Your task to perform on an android device: toggle show notifications on the lock screen Image 0: 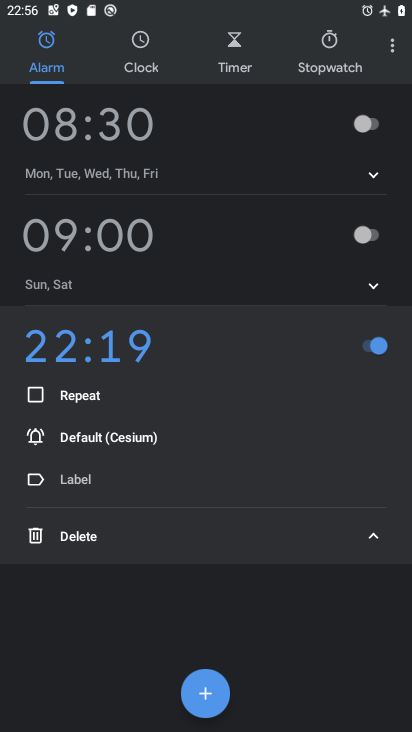
Step 0: press home button
Your task to perform on an android device: toggle show notifications on the lock screen Image 1: 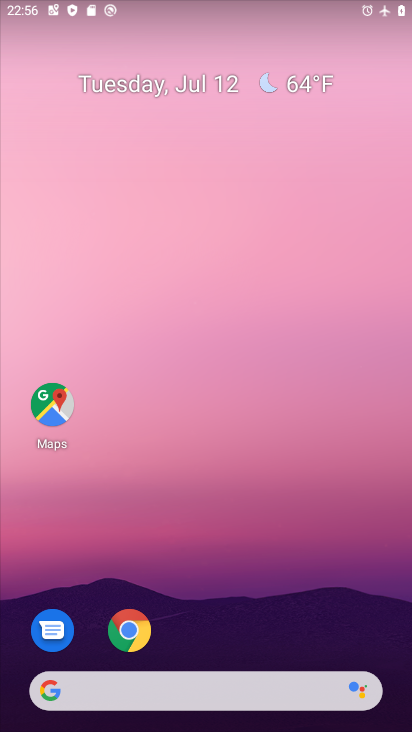
Step 1: drag from (240, 647) to (196, 66)
Your task to perform on an android device: toggle show notifications on the lock screen Image 2: 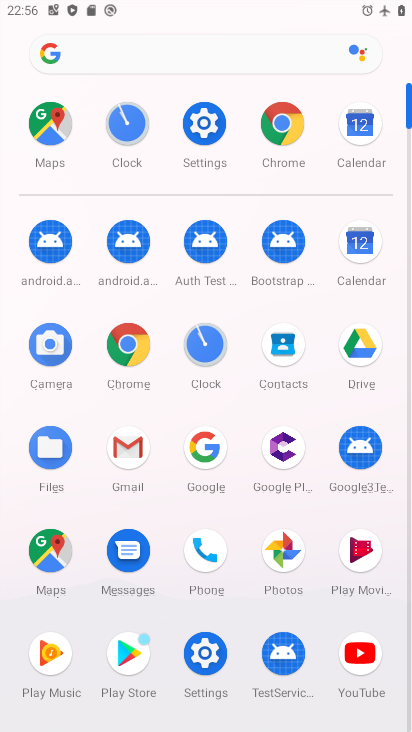
Step 2: click (200, 121)
Your task to perform on an android device: toggle show notifications on the lock screen Image 3: 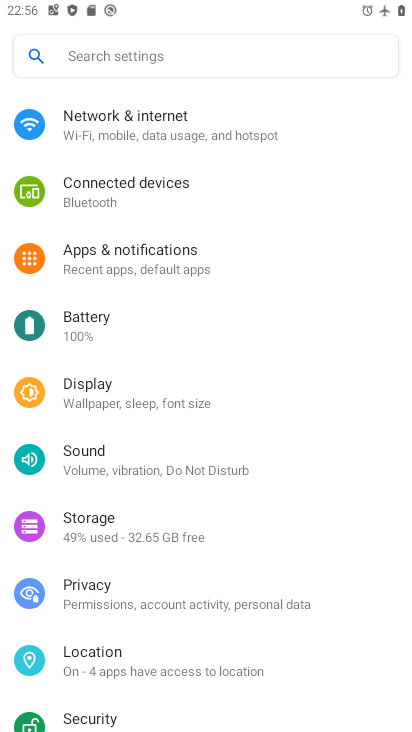
Step 3: click (101, 273)
Your task to perform on an android device: toggle show notifications on the lock screen Image 4: 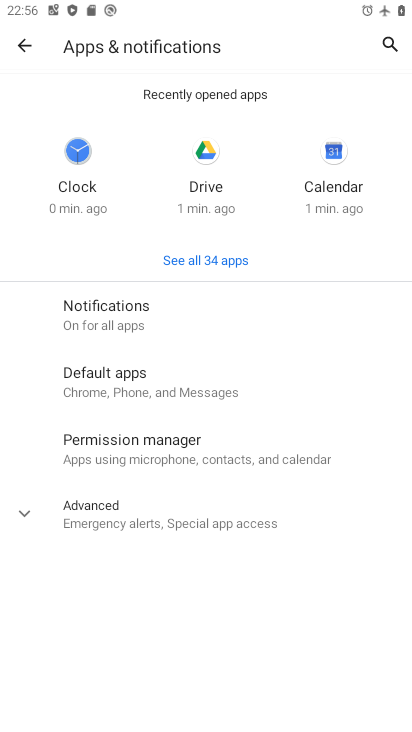
Step 4: click (95, 330)
Your task to perform on an android device: toggle show notifications on the lock screen Image 5: 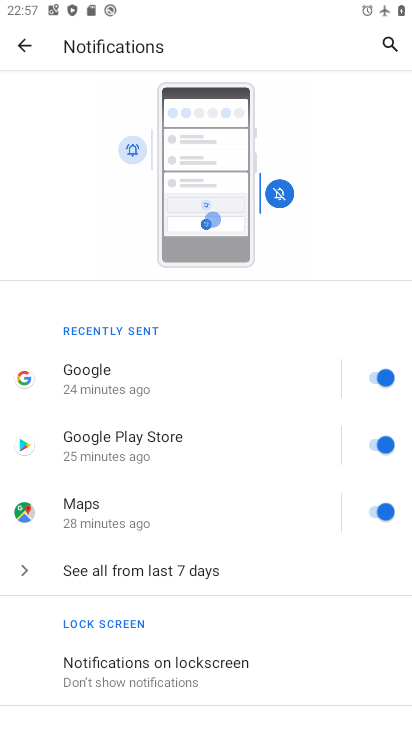
Step 5: click (168, 674)
Your task to perform on an android device: toggle show notifications on the lock screen Image 6: 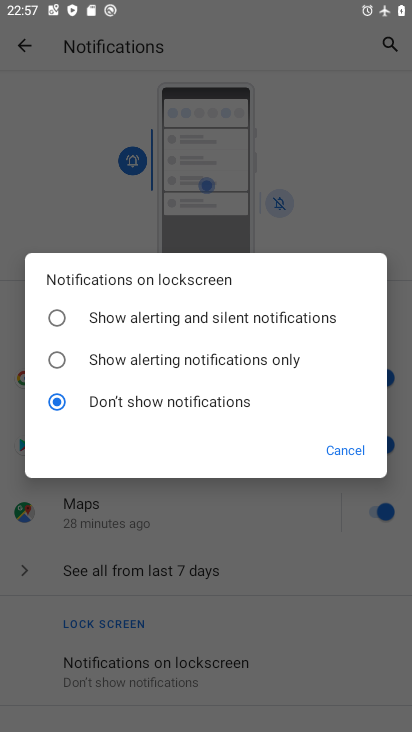
Step 6: click (98, 327)
Your task to perform on an android device: toggle show notifications on the lock screen Image 7: 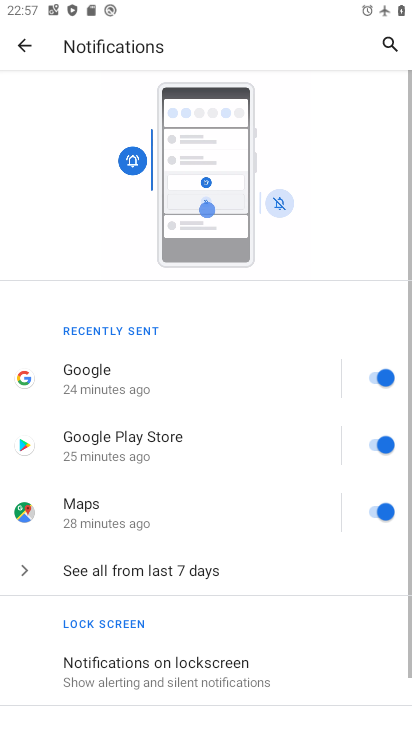
Step 7: task complete